Your task to perform on an android device: Open calendar and show me the third week of next month Image 0: 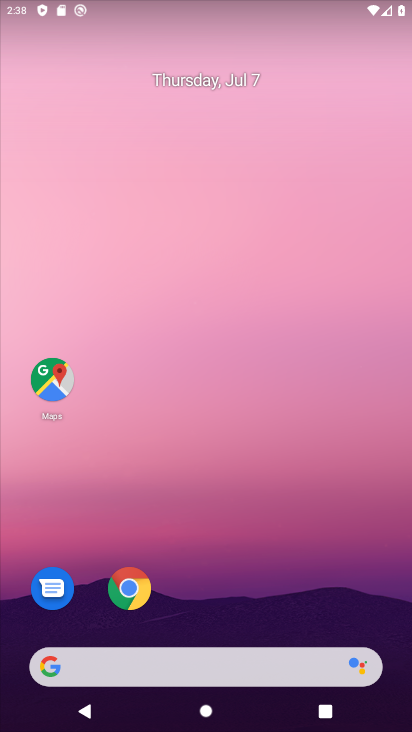
Step 0: drag from (141, 629) to (154, 138)
Your task to perform on an android device: Open calendar and show me the third week of next month Image 1: 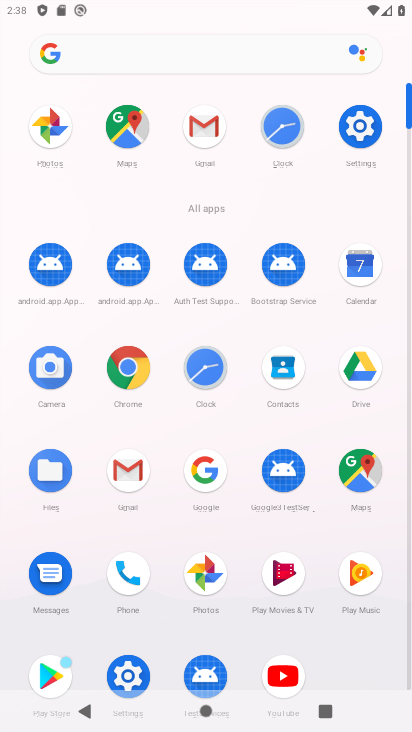
Step 1: click (357, 260)
Your task to perform on an android device: Open calendar and show me the third week of next month Image 2: 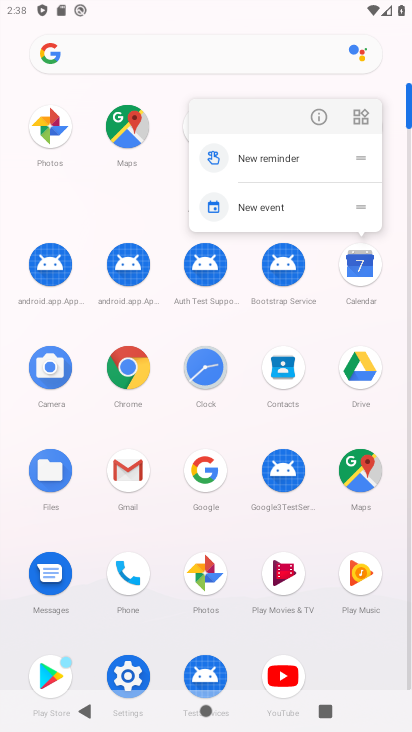
Step 2: click (360, 271)
Your task to perform on an android device: Open calendar and show me the third week of next month Image 3: 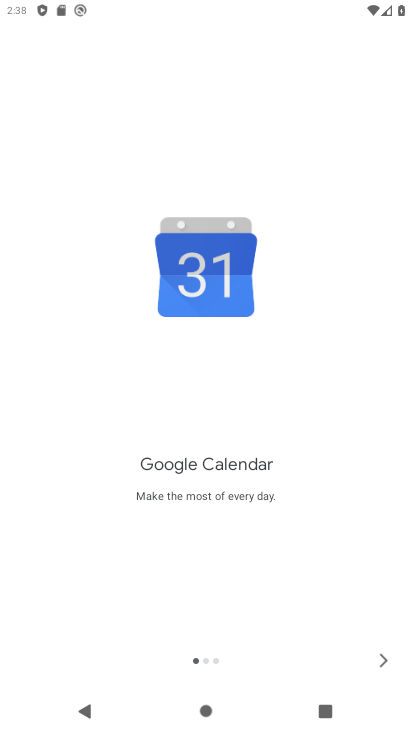
Step 3: click (378, 658)
Your task to perform on an android device: Open calendar and show me the third week of next month Image 4: 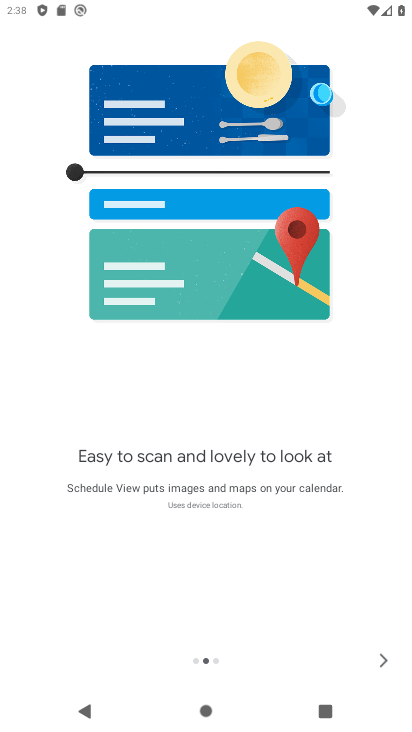
Step 4: click (378, 658)
Your task to perform on an android device: Open calendar and show me the third week of next month Image 5: 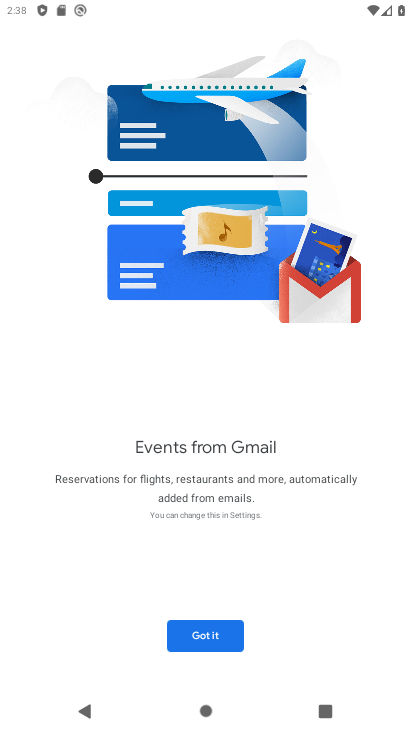
Step 5: click (229, 632)
Your task to perform on an android device: Open calendar and show me the third week of next month Image 6: 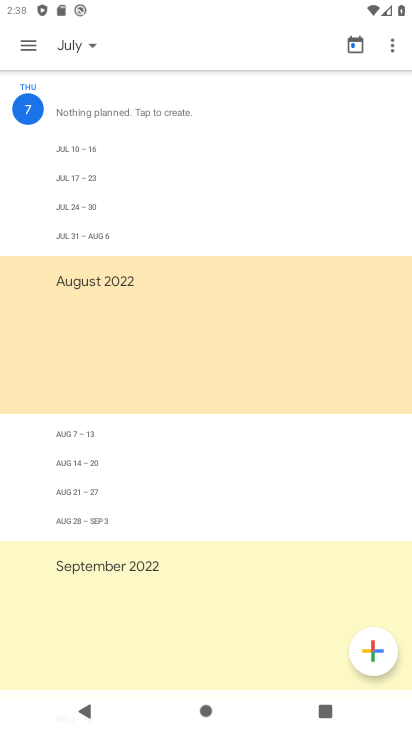
Step 6: click (86, 49)
Your task to perform on an android device: Open calendar and show me the third week of next month Image 7: 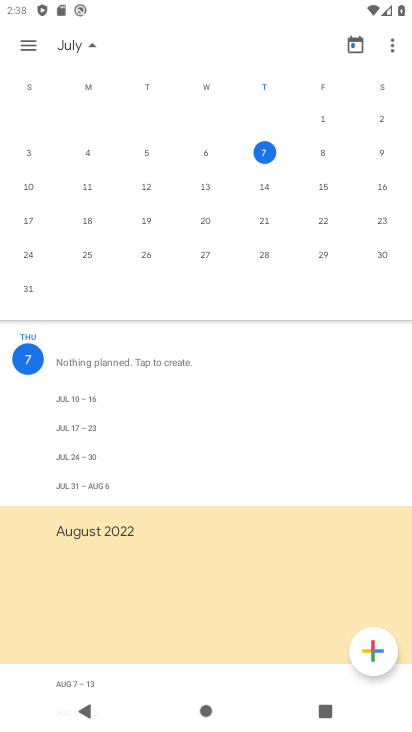
Step 7: drag from (297, 246) to (14, 229)
Your task to perform on an android device: Open calendar and show me the third week of next month Image 8: 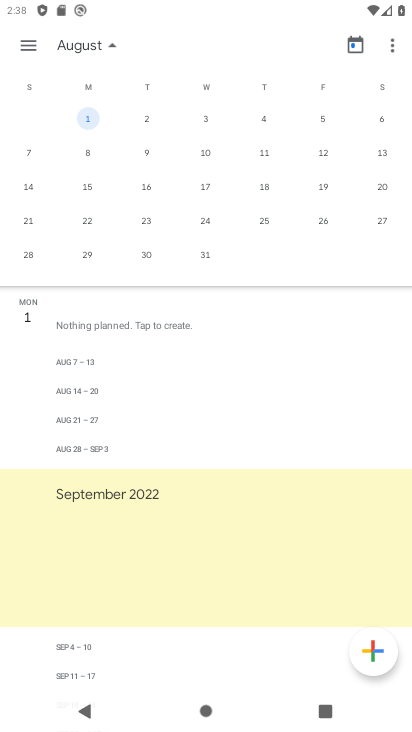
Step 8: click (30, 181)
Your task to perform on an android device: Open calendar and show me the third week of next month Image 9: 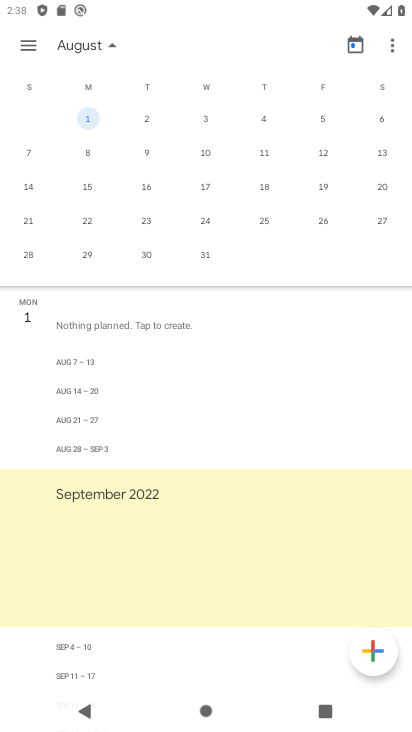
Step 9: click (32, 185)
Your task to perform on an android device: Open calendar and show me the third week of next month Image 10: 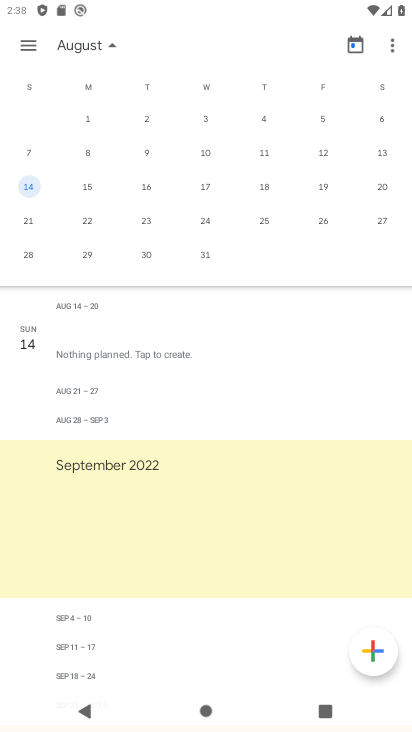
Step 10: task complete